Your task to perform on an android device: When is my next appointment? Image 0: 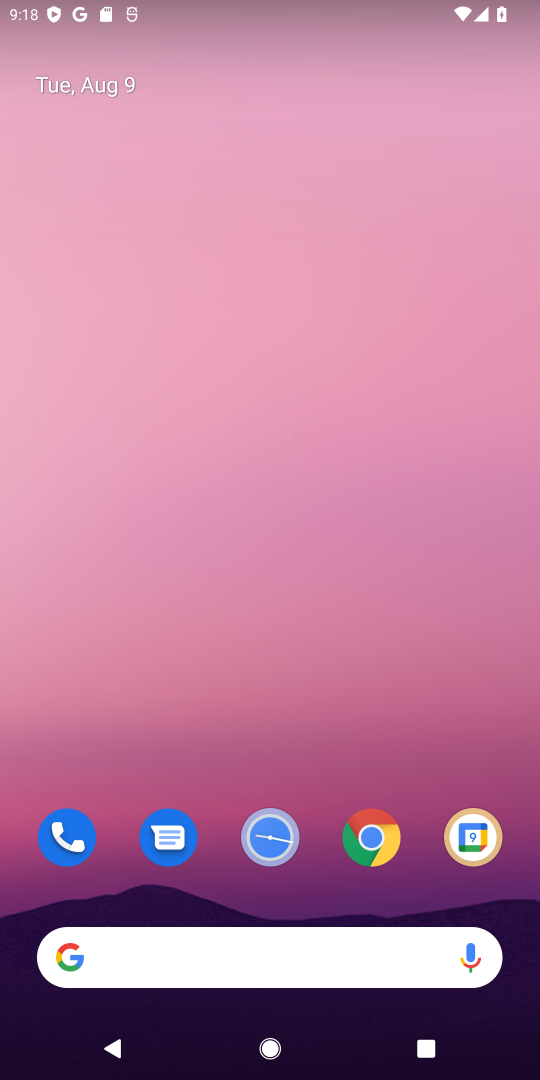
Step 0: drag from (327, 914) to (334, 223)
Your task to perform on an android device: When is my next appointment? Image 1: 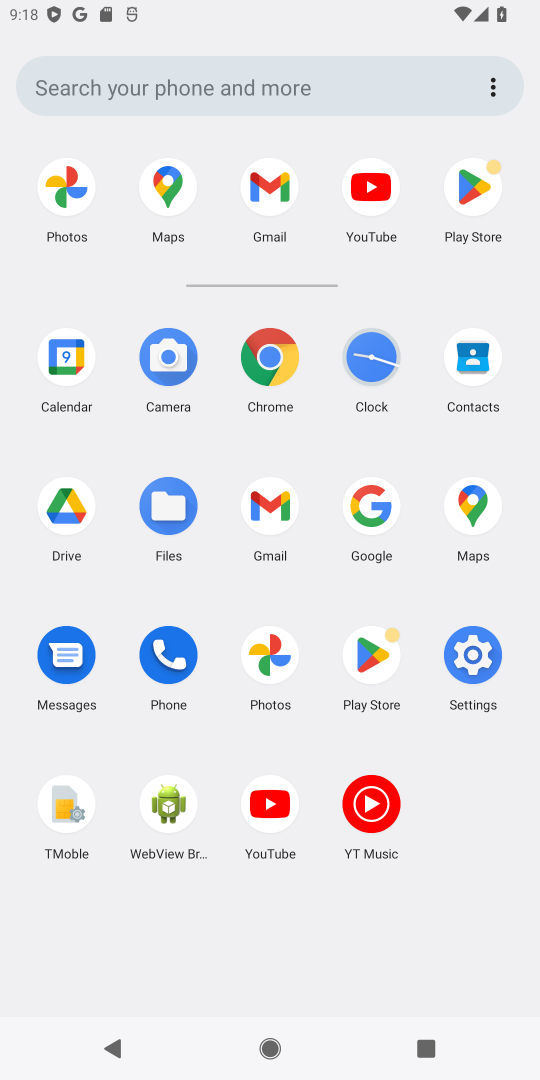
Step 1: click (60, 354)
Your task to perform on an android device: When is my next appointment? Image 2: 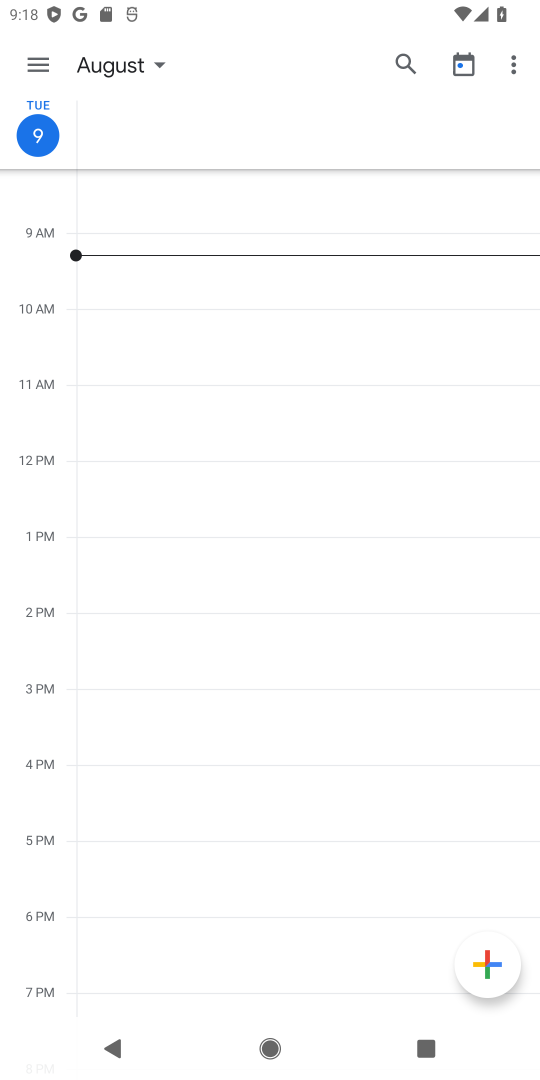
Step 2: click (150, 63)
Your task to perform on an android device: When is my next appointment? Image 3: 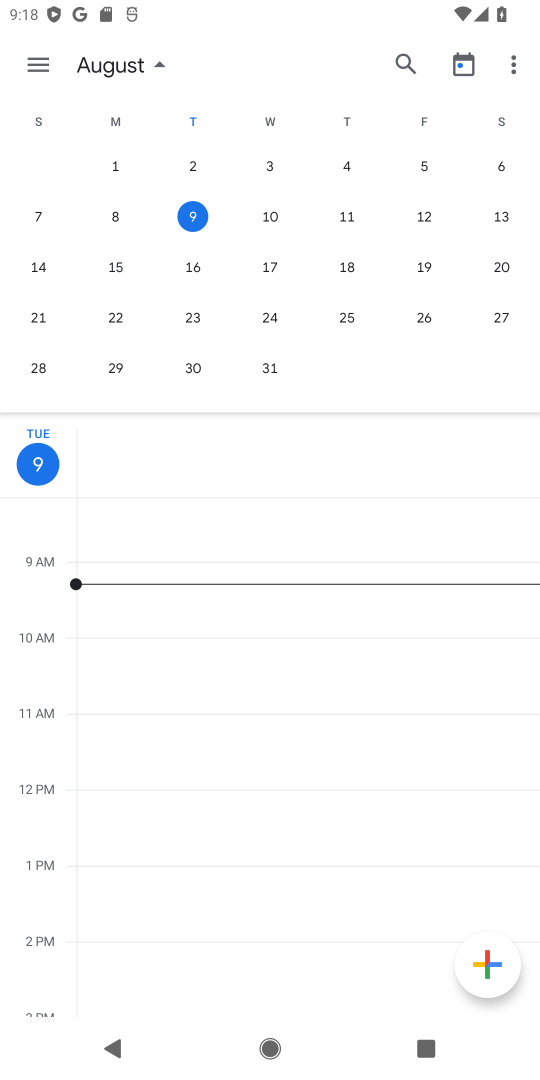
Step 3: click (273, 209)
Your task to perform on an android device: When is my next appointment? Image 4: 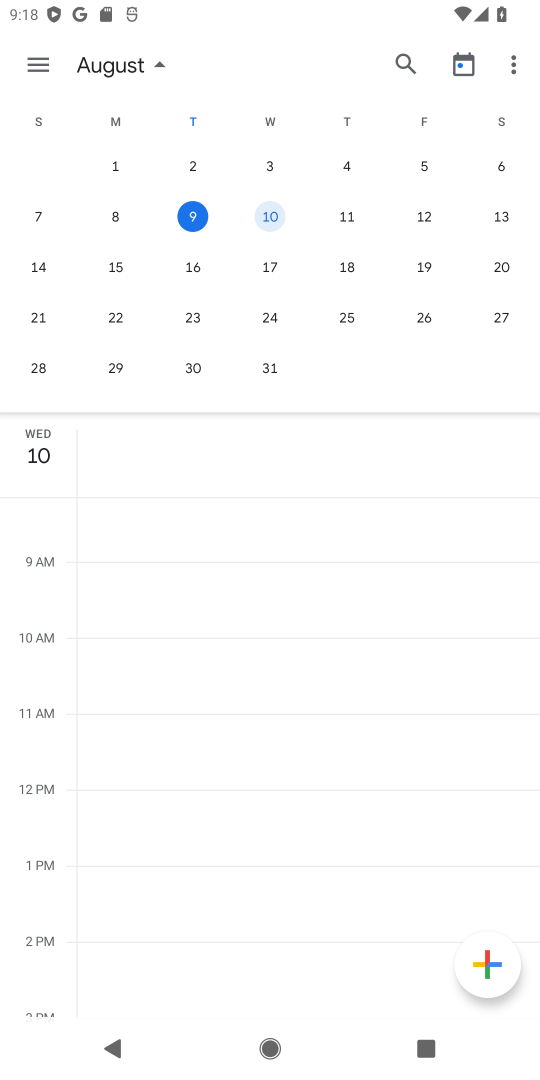
Step 4: click (273, 209)
Your task to perform on an android device: When is my next appointment? Image 5: 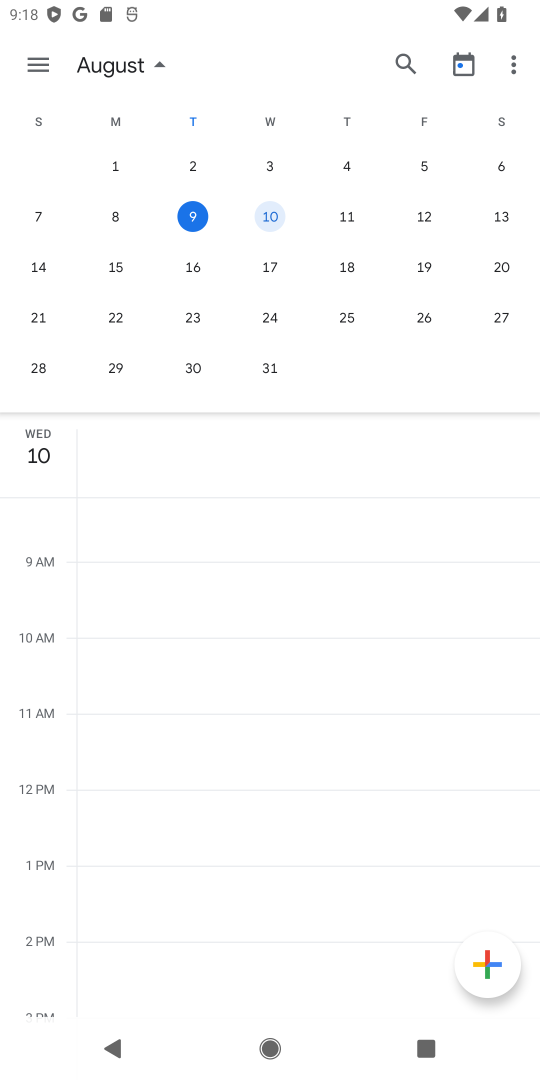
Step 5: click (273, 209)
Your task to perform on an android device: When is my next appointment? Image 6: 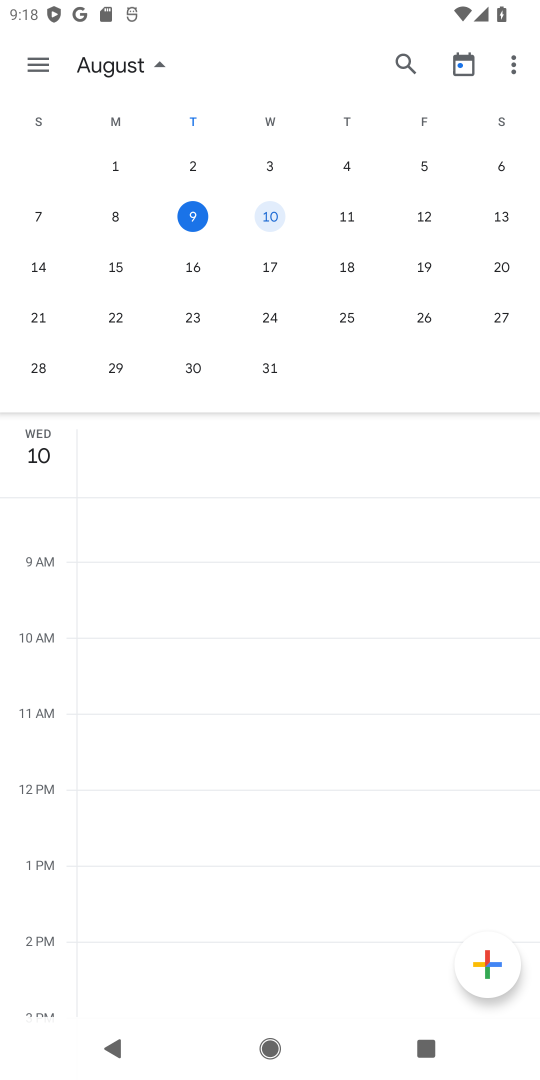
Step 6: task complete